Your task to perform on an android device: Go to Amazon Image 0: 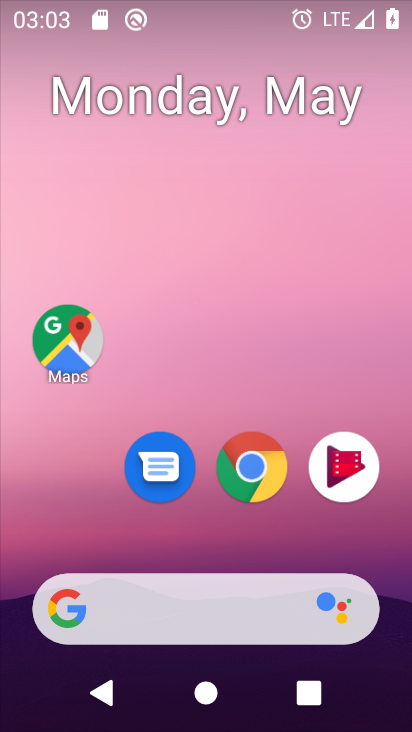
Step 0: click (251, 486)
Your task to perform on an android device: Go to Amazon Image 1: 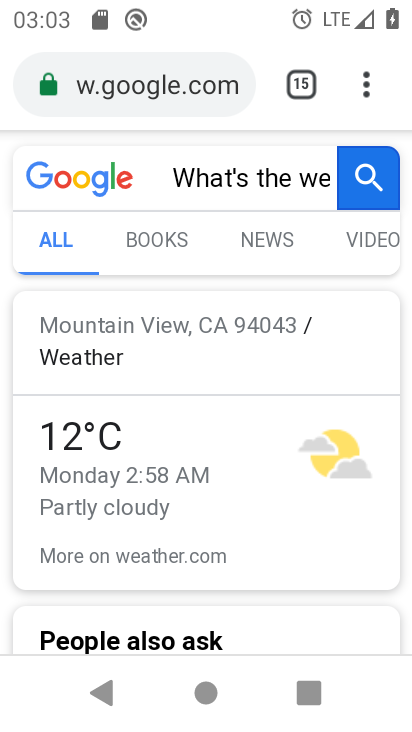
Step 1: click (344, 78)
Your task to perform on an android device: Go to Amazon Image 2: 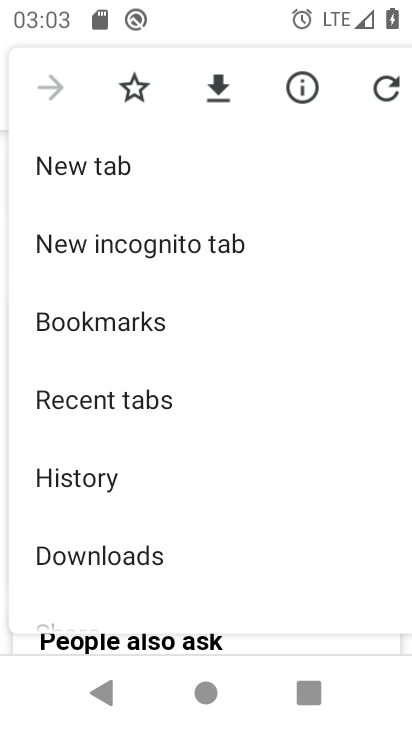
Step 2: click (135, 175)
Your task to perform on an android device: Go to Amazon Image 3: 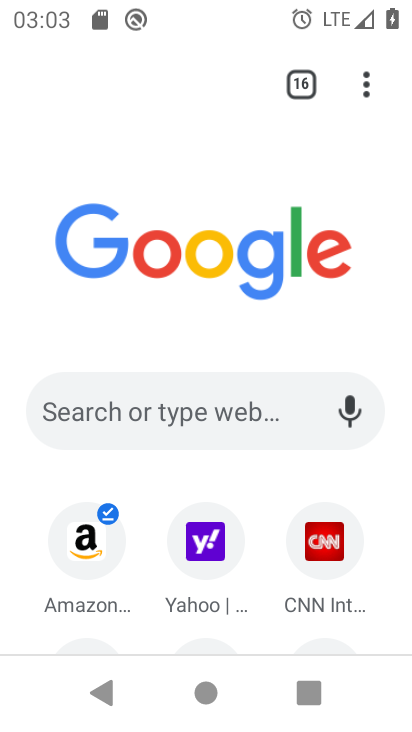
Step 3: click (92, 534)
Your task to perform on an android device: Go to Amazon Image 4: 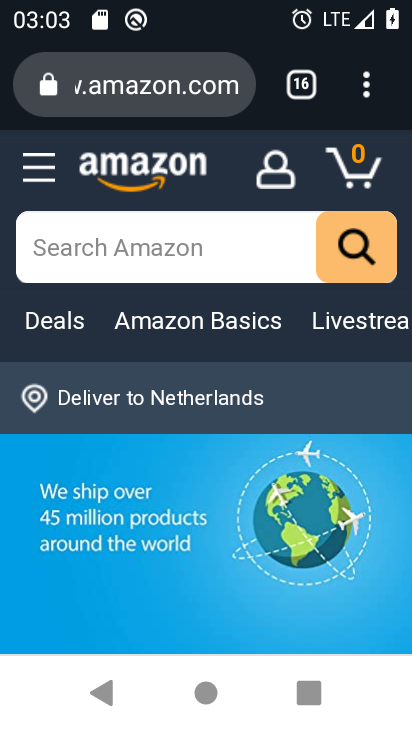
Step 4: task complete